Your task to perform on an android device: toggle javascript in the chrome app Image 0: 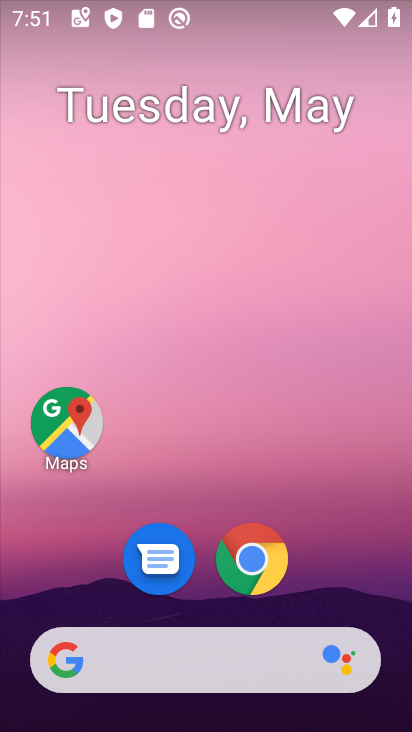
Step 0: drag from (375, 543) to (0, 374)
Your task to perform on an android device: toggle javascript in the chrome app Image 1: 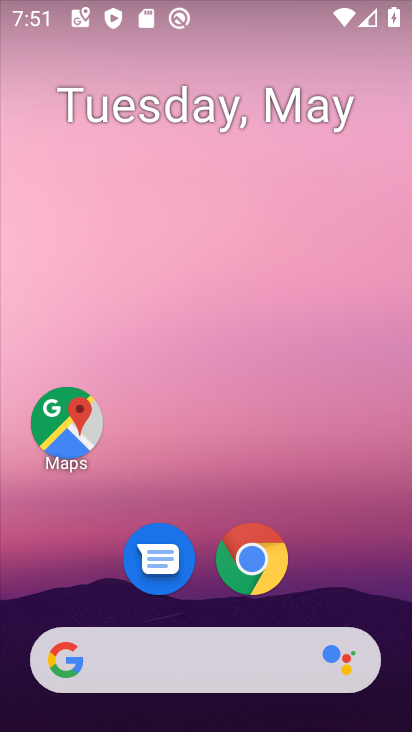
Step 1: drag from (363, 543) to (371, 115)
Your task to perform on an android device: toggle javascript in the chrome app Image 2: 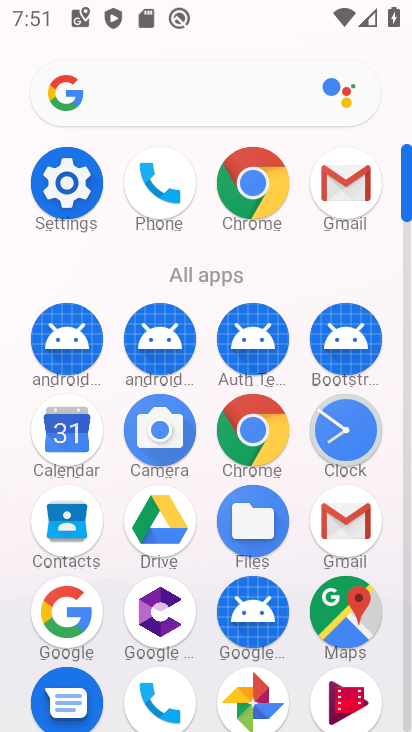
Step 2: click (259, 181)
Your task to perform on an android device: toggle javascript in the chrome app Image 3: 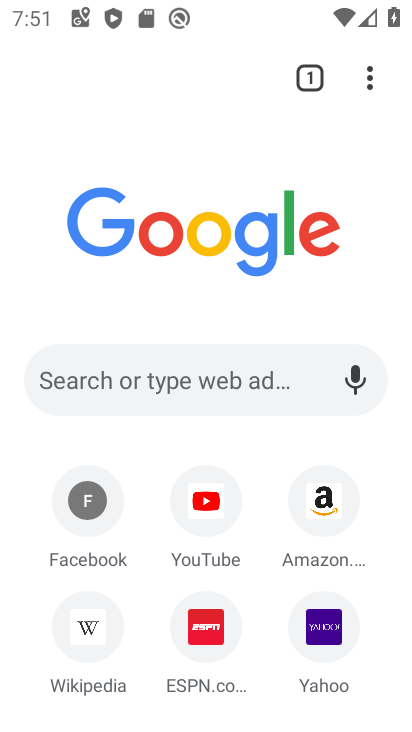
Step 3: drag from (379, 87) to (170, 607)
Your task to perform on an android device: toggle javascript in the chrome app Image 4: 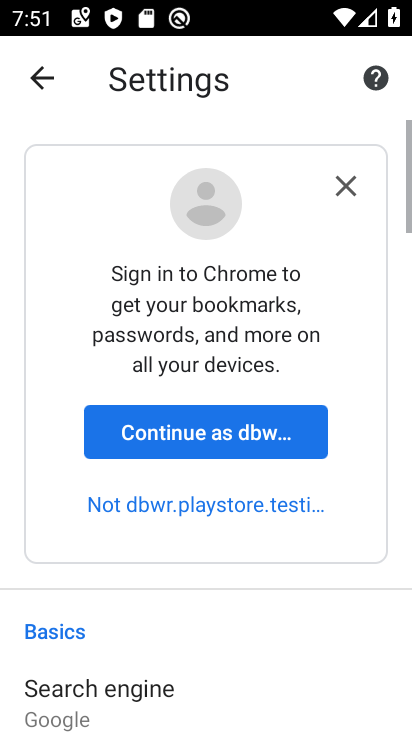
Step 4: drag from (170, 606) to (242, 199)
Your task to perform on an android device: toggle javascript in the chrome app Image 5: 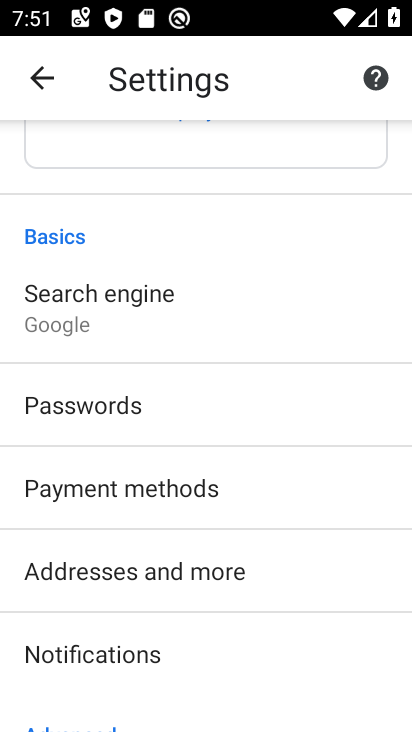
Step 5: drag from (209, 579) to (281, 181)
Your task to perform on an android device: toggle javascript in the chrome app Image 6: 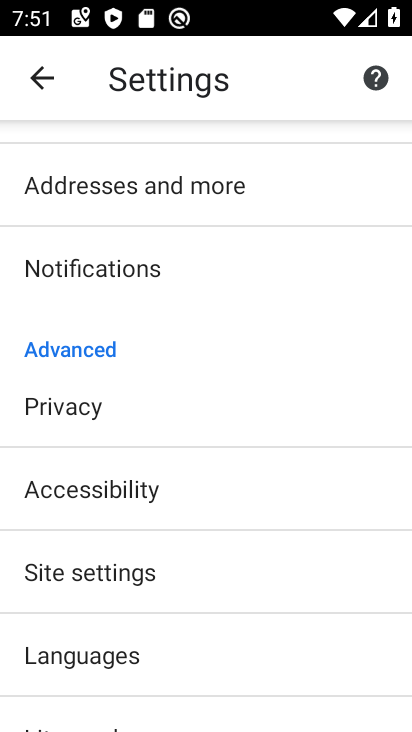
Step 6: drag from (266, 619) to (311, 226)
Your task to perform on an android device: toggle javascript in the chrome app Image 7: 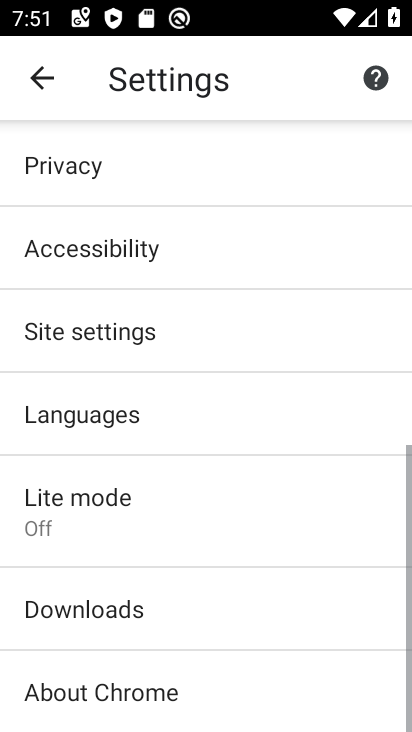
Step 7: click (123, 332)
Your task to perform on an android device: toggle javascript in the chrome app Image 8: 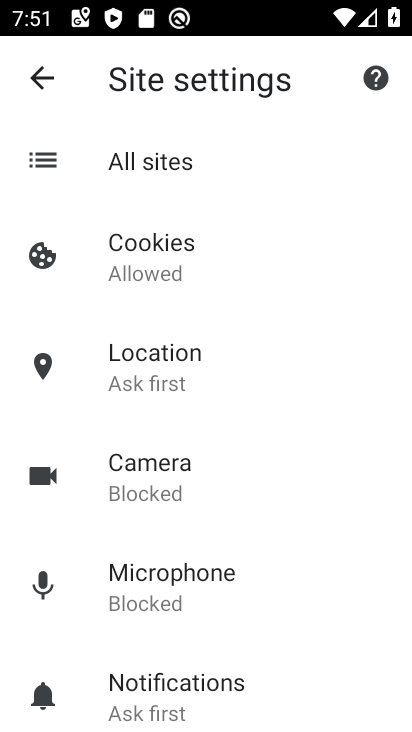
Step 8: drag from (303, 542) to (334, 221)
Your task to perform on an android device: toggle javascript in the chrome app Image 9: 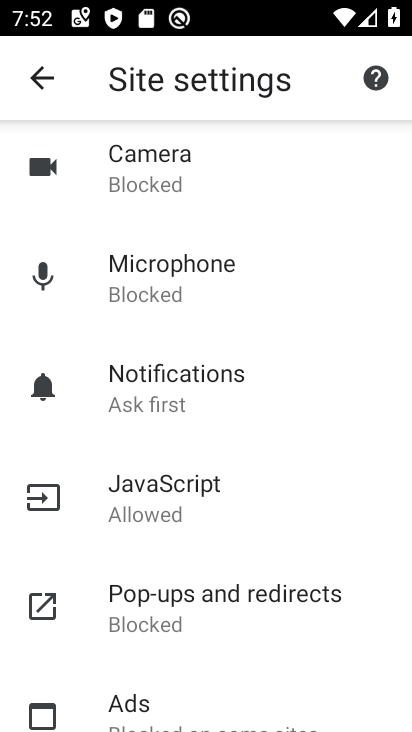
Step 9: click (148, 522)
Your task to perform on an android device: toggle javascript in the chrome app Image 10: 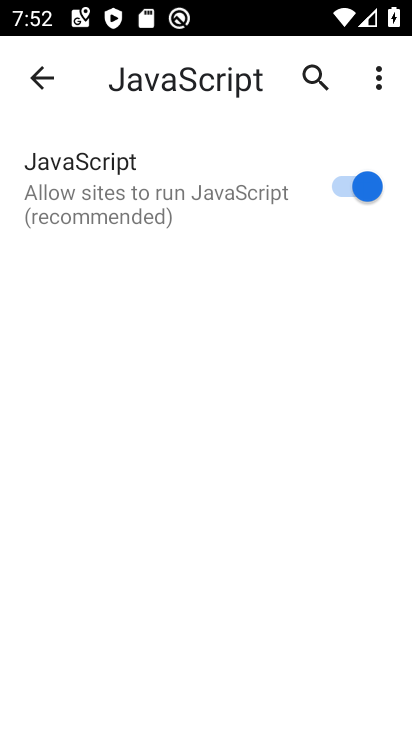
Step 10: click (365, 176)
Your task to perform on an android device: toggle javascript in the chrome app Image 11: 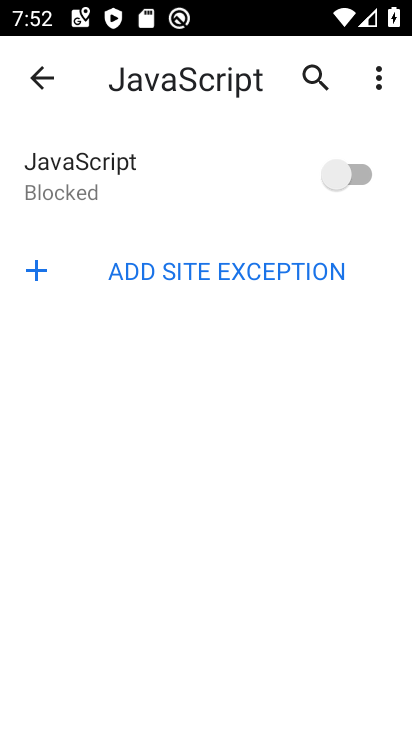
Step 11: task complete